Your task to perform on an android device: check data usage Image 0: 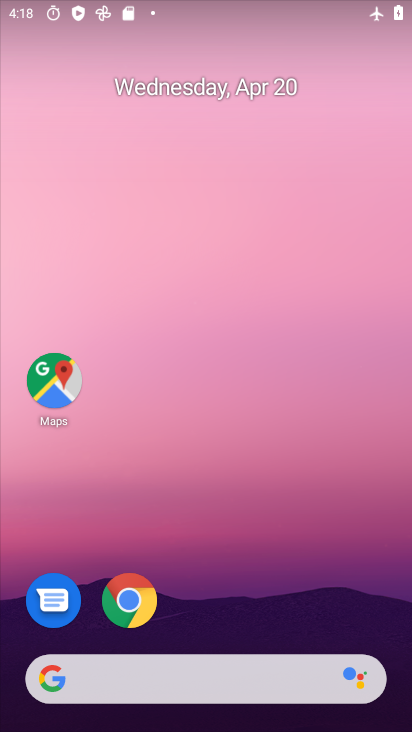
Step 0: drag from (300, 295) to (305, 127)
Your task to perform on an android device: check data usage Image 1: 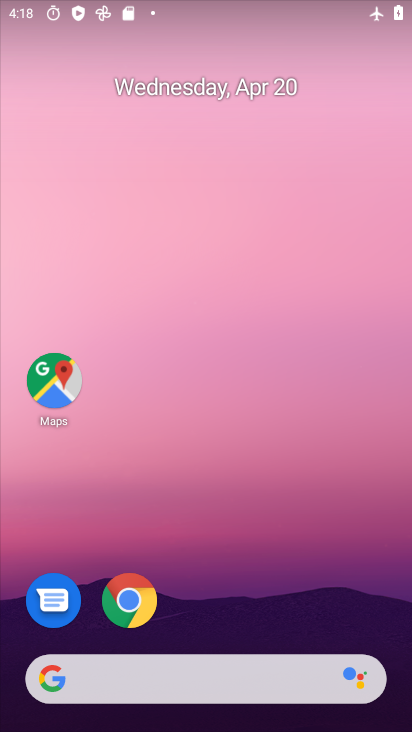
Step 1: drag from (254, 484) to (238, 84)
Your task to perform on an android device: check data usage Image 2: 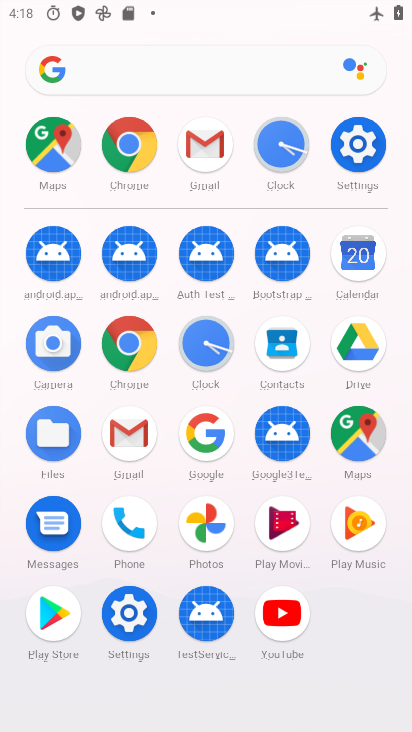
Step 2: click (352, 149)
Your task to perform on an android device: check data usage Image 3: 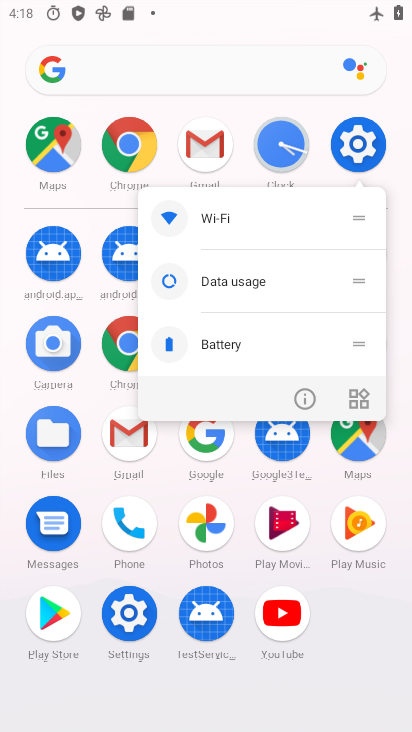
Step 3: click (349, 149)
Your task to perform on an android device: check data usage Image 4: 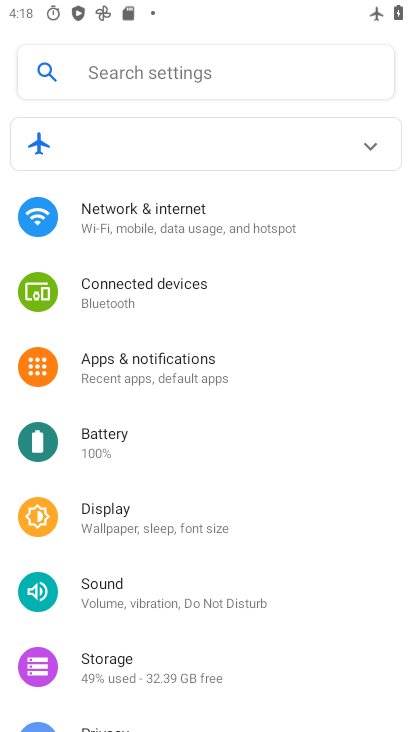
Step 4: click (124, 207)
Your task to perform on an android device: check data usage Image 5: 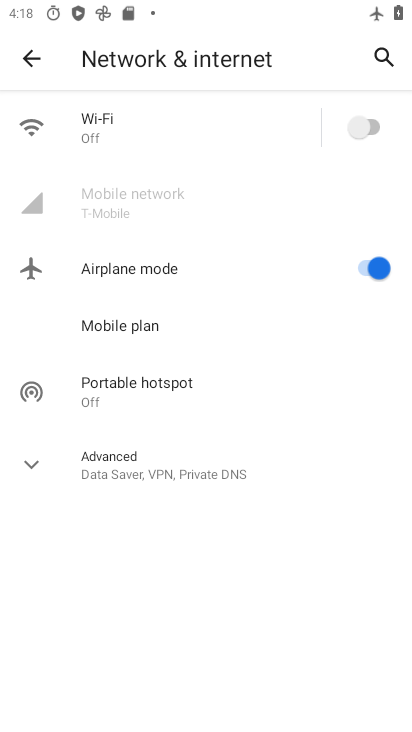
Step 5: click (147, 131)
Your task to perform on an android device: check data usage Image 6: 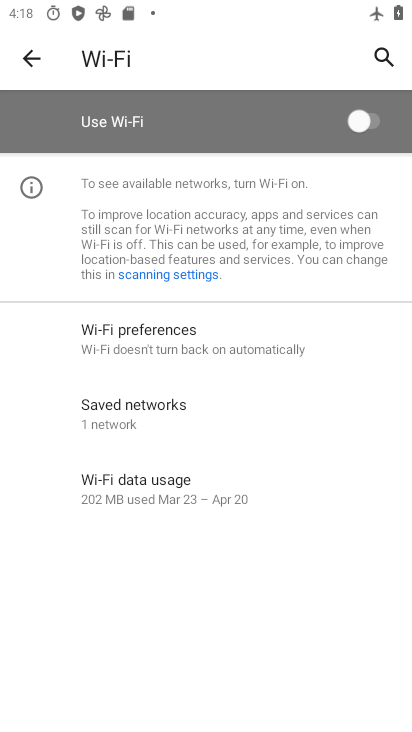
Step 6: click (201, 492)
Your task to perform on an android device: check data usage Image 7: 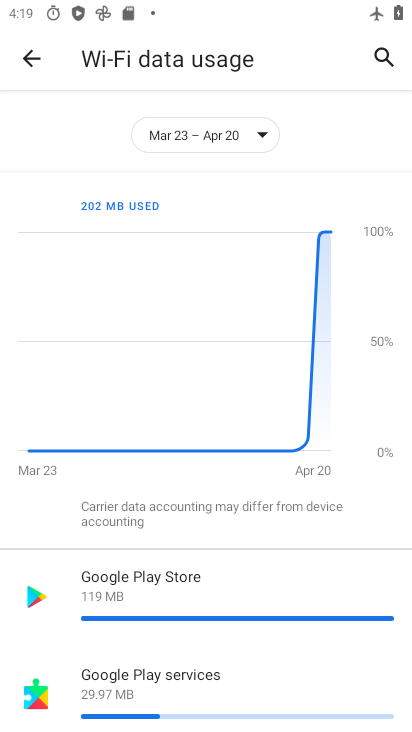
Step 7: task complete